Your task to perform on an android device: Search for handmade jewelry on Etsy. Image 0: 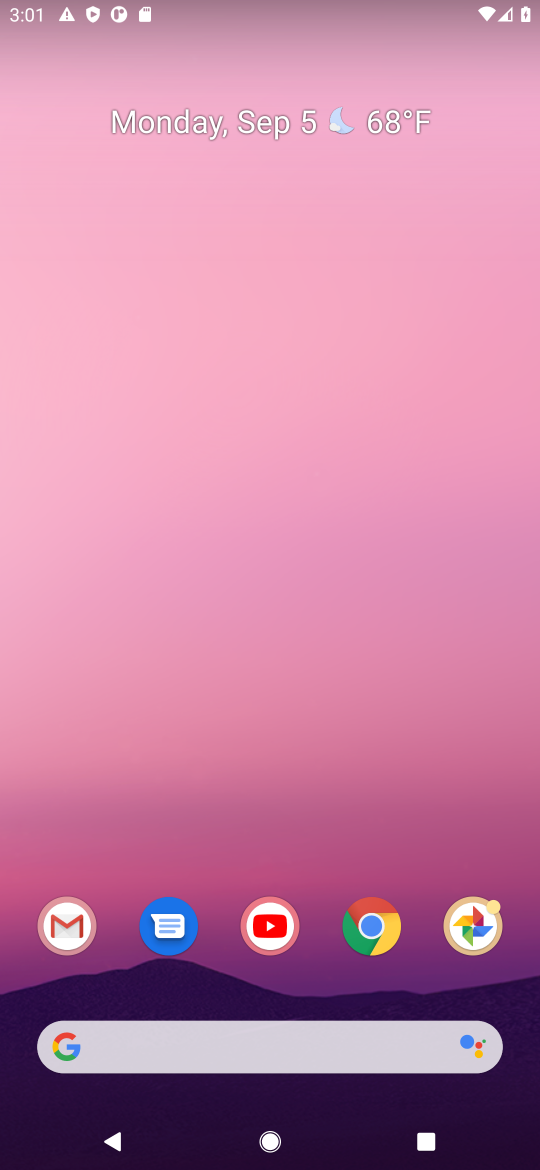
Step 0: click (421, 847)
Your task to perform on an android device: Search for handmade jewelry on Etsy. Image 1: 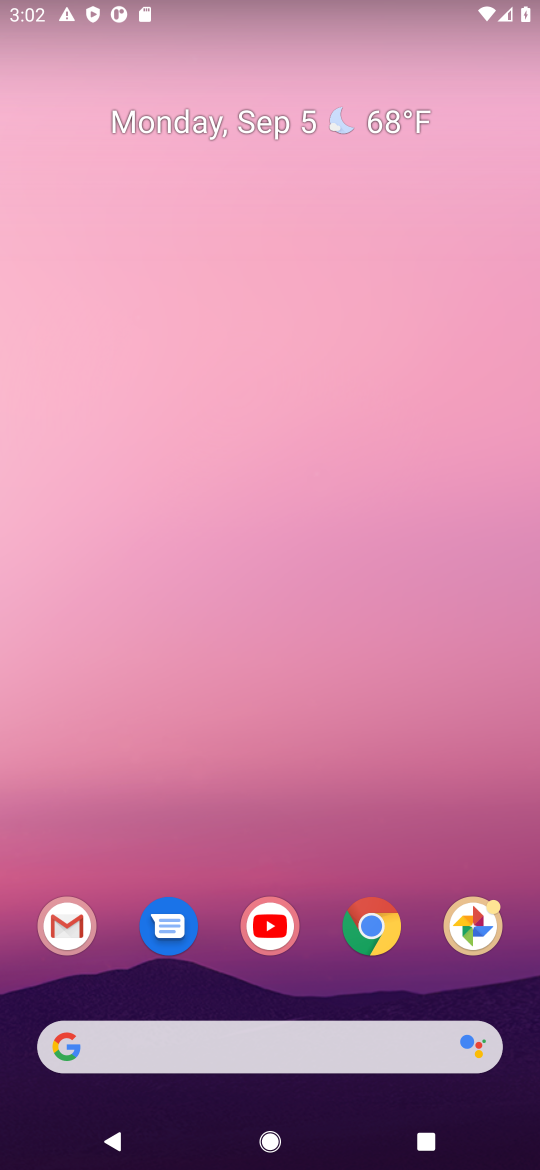
Step 1: task complete